Your task to perform on an android device: How do I get to the nearest grocery store? Image 0: 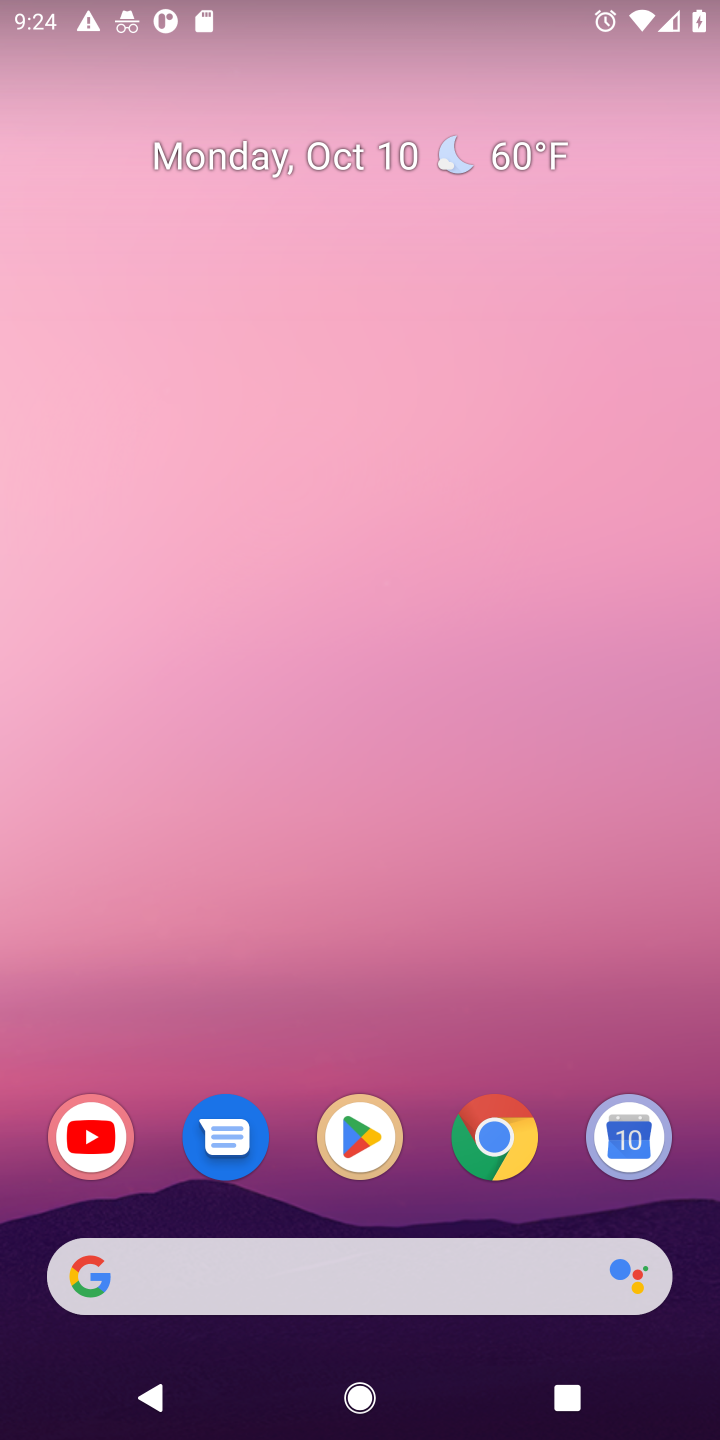
Step 0: click (496, 1144)
Your task to perform on an android device: How do I get to the nearest grocery store? Image 1: 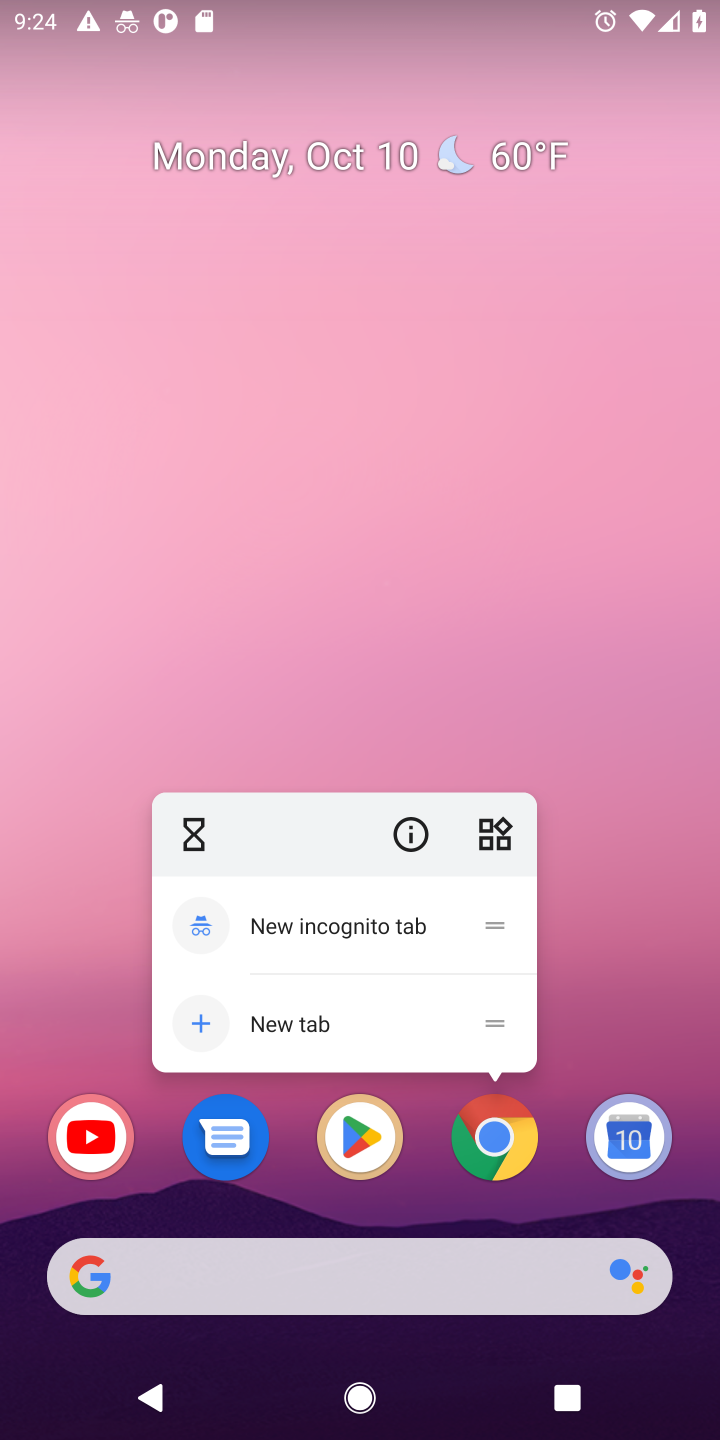
Step 1: click (496, 1144)
Your task to perform on an android device: How do I get to the nearest grocery store? Image 2: 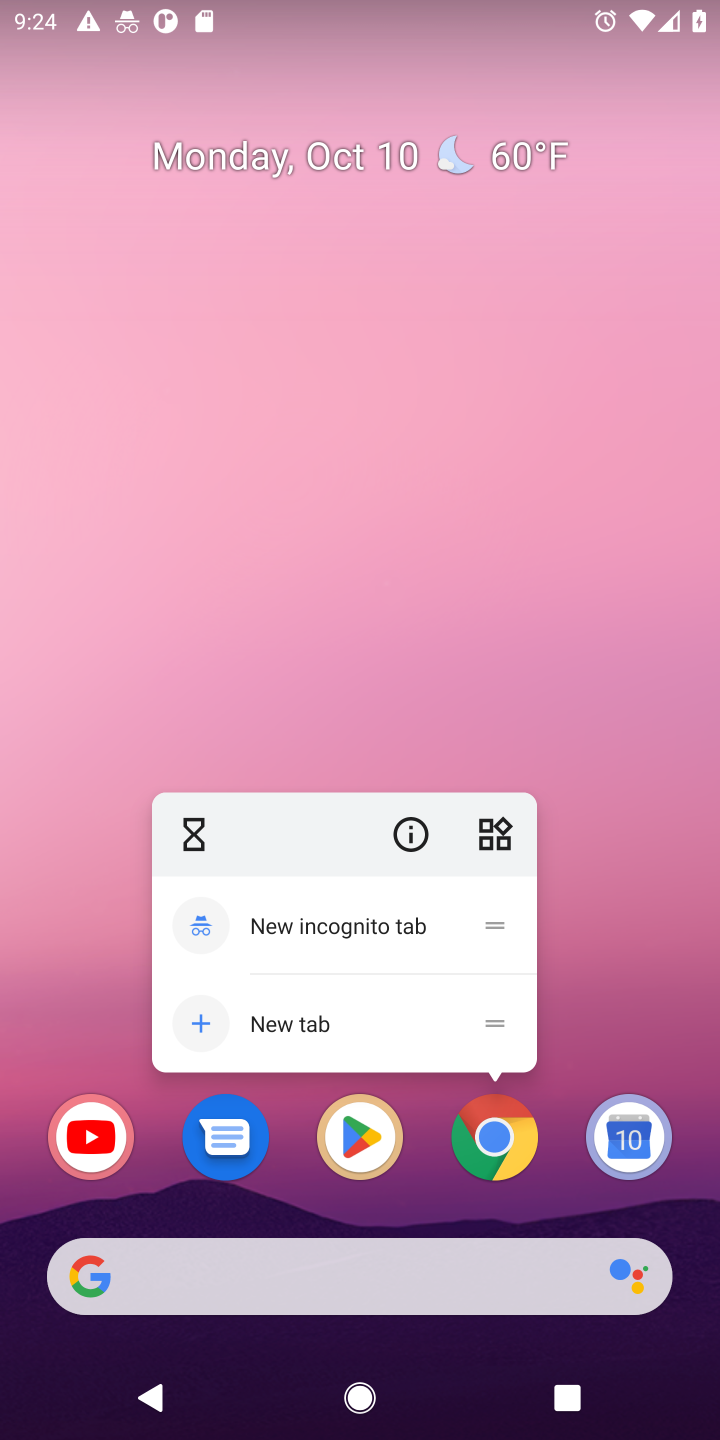
Step 2: click (431, 1196)
Your task to perform on an android device: How do I get to the nearest grocery store? Image 3: 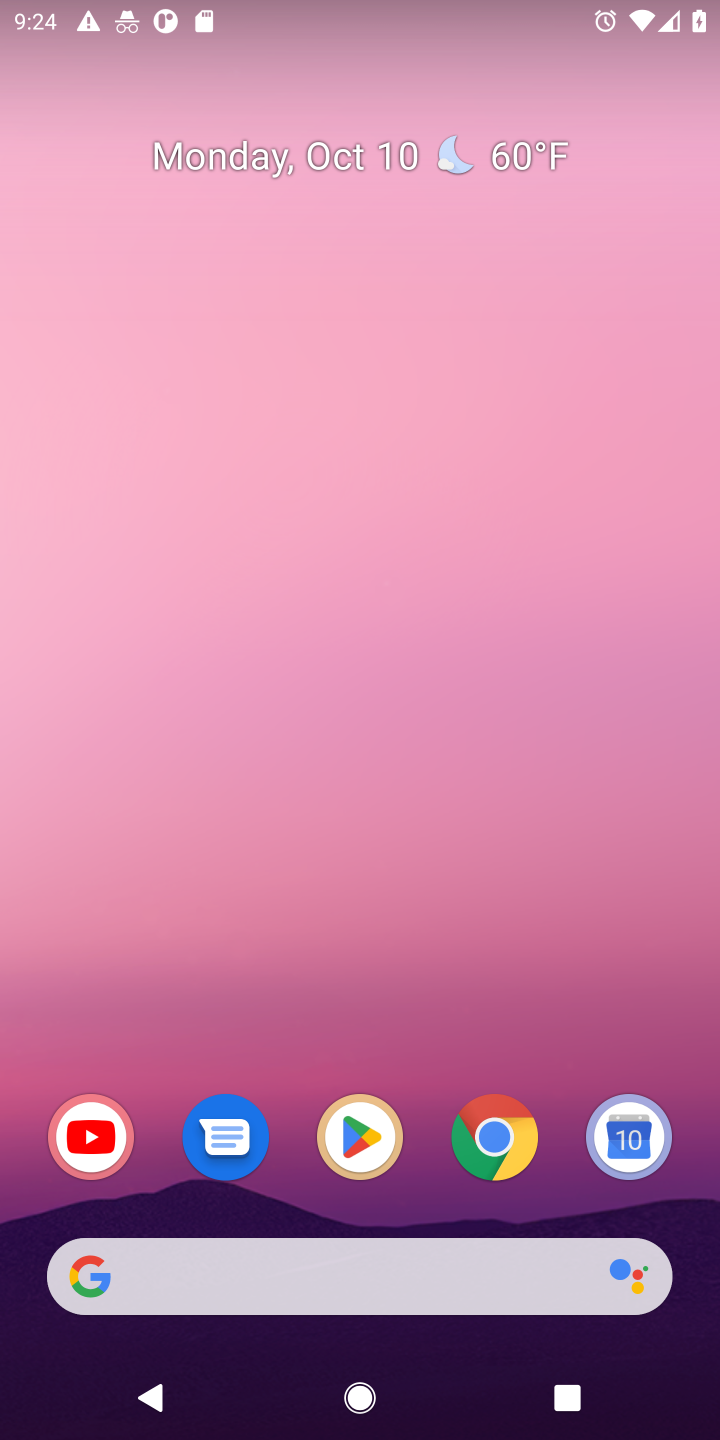
Step 3: drag from (427, 1104) to (394, 112)
Your task to perform on an android device: How do I get to the nearest grocery store? Image 4: 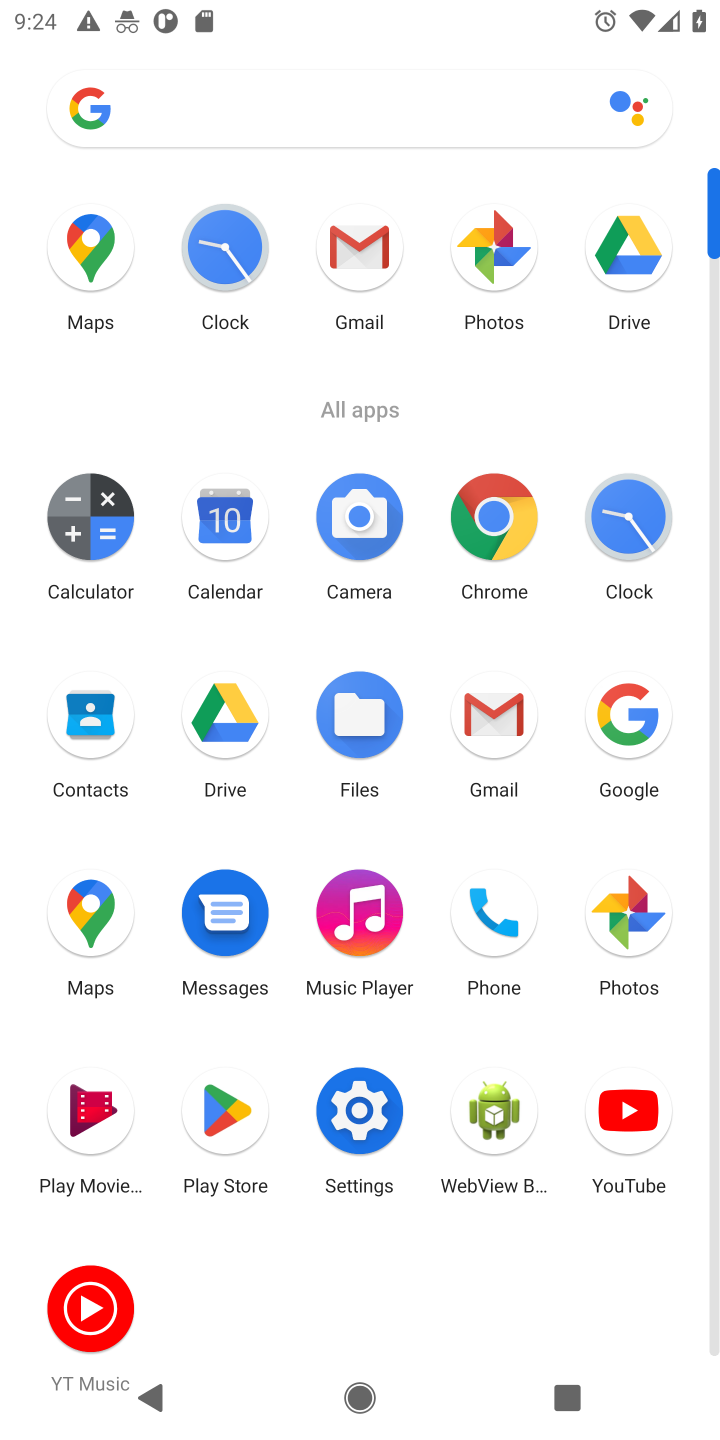
Step 4: click (85, 894)
Your task to perform on an android device: How do I get to the nearest grocery store? Image 5: 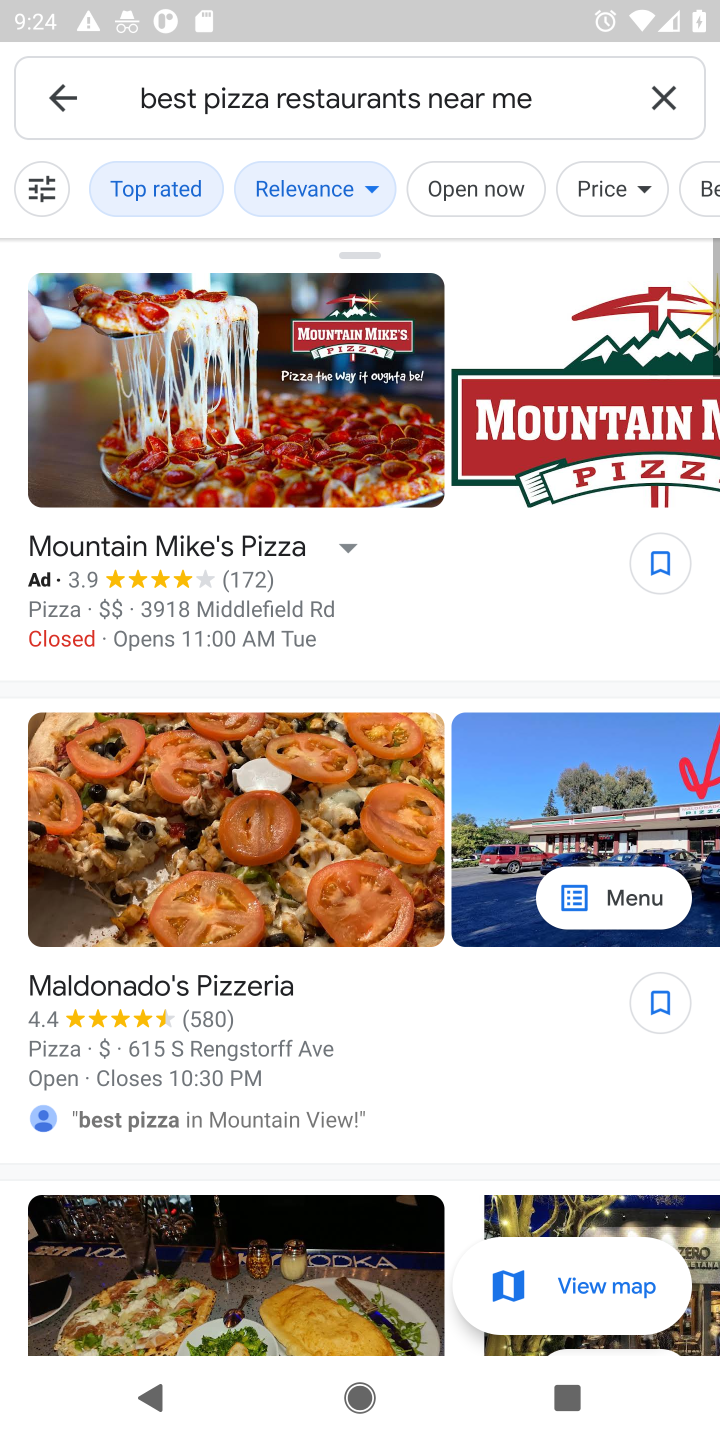
Step 5: click (651, 97)
Your task to perform on an android device: How do I get to the nearest grocery store? Image 6: 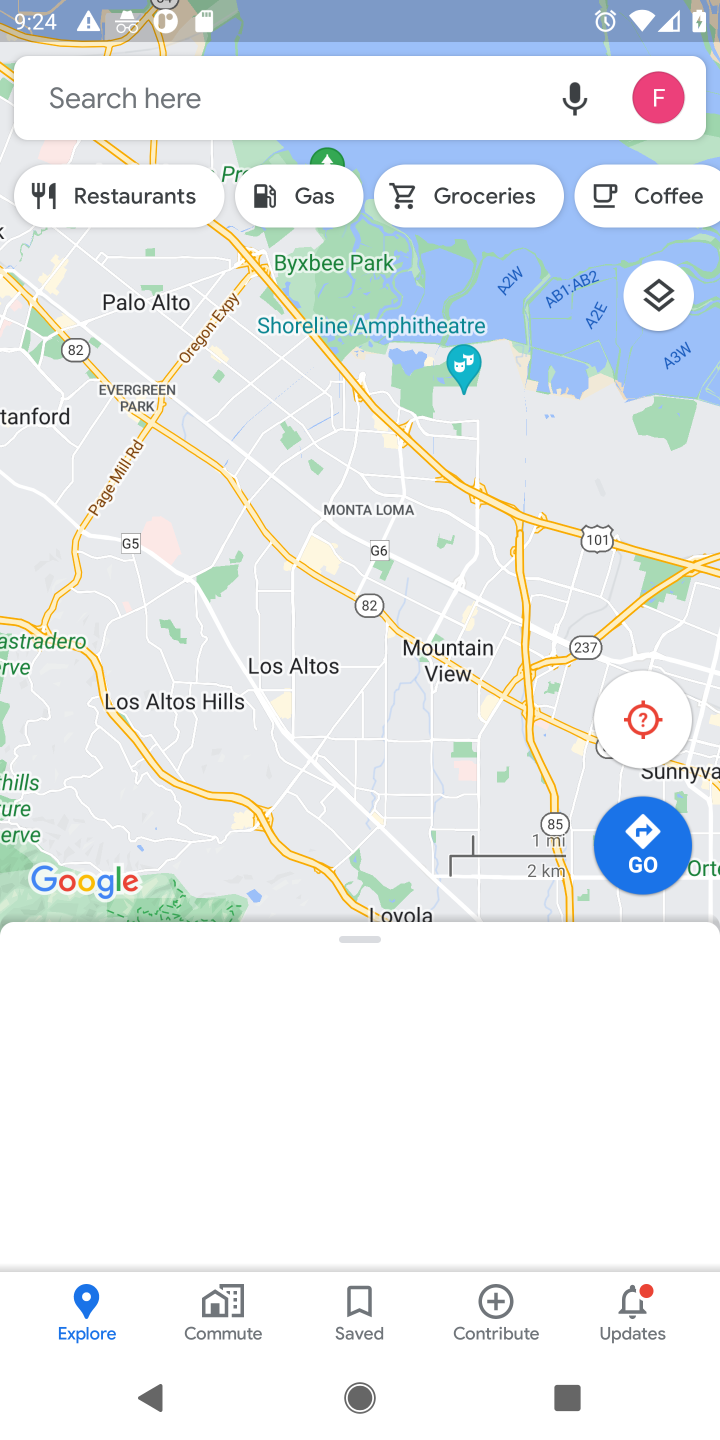
Step 6: click (182, 85)
Your task to perform on an android device: How do I get to the nearest grocery store? Image 7: 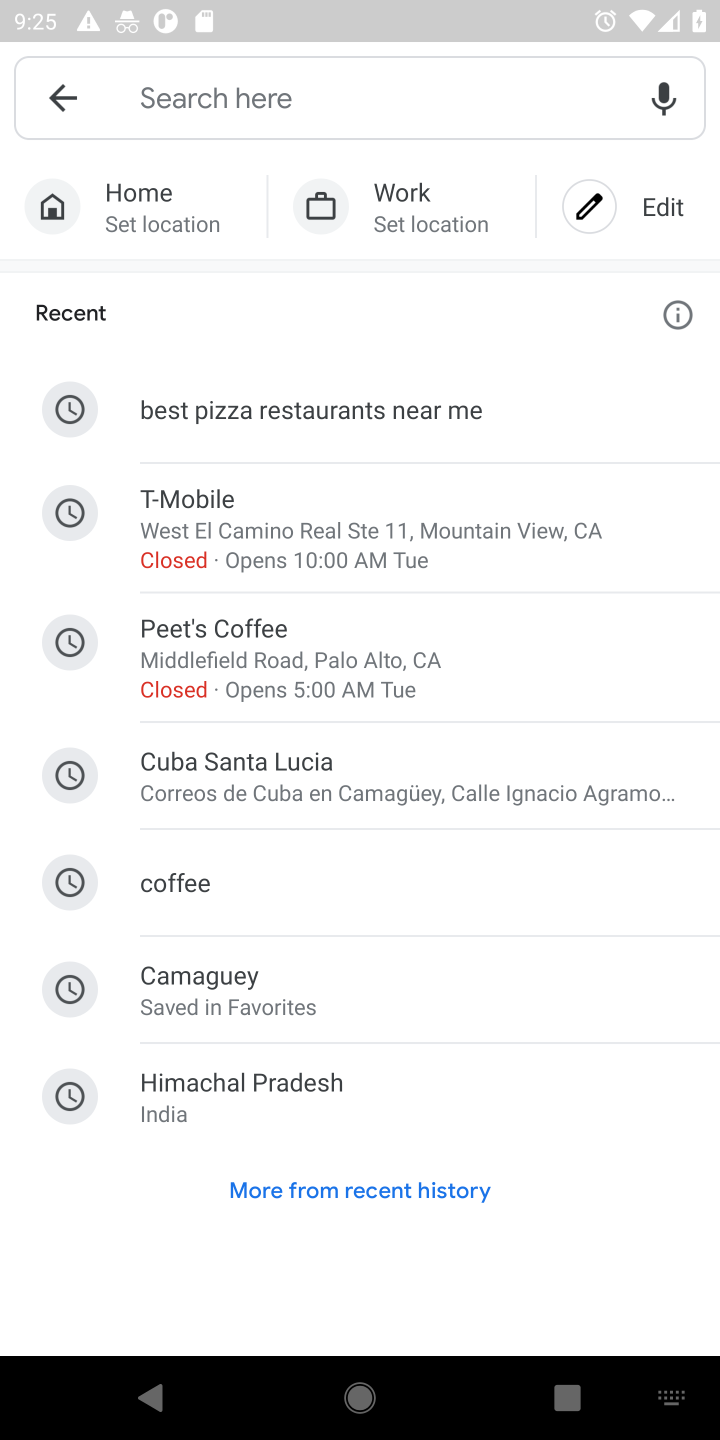
Step 7: type "nearest grocery store"
Your task to perform on an android device: How do I get to the nearest grocery store? Image 8: 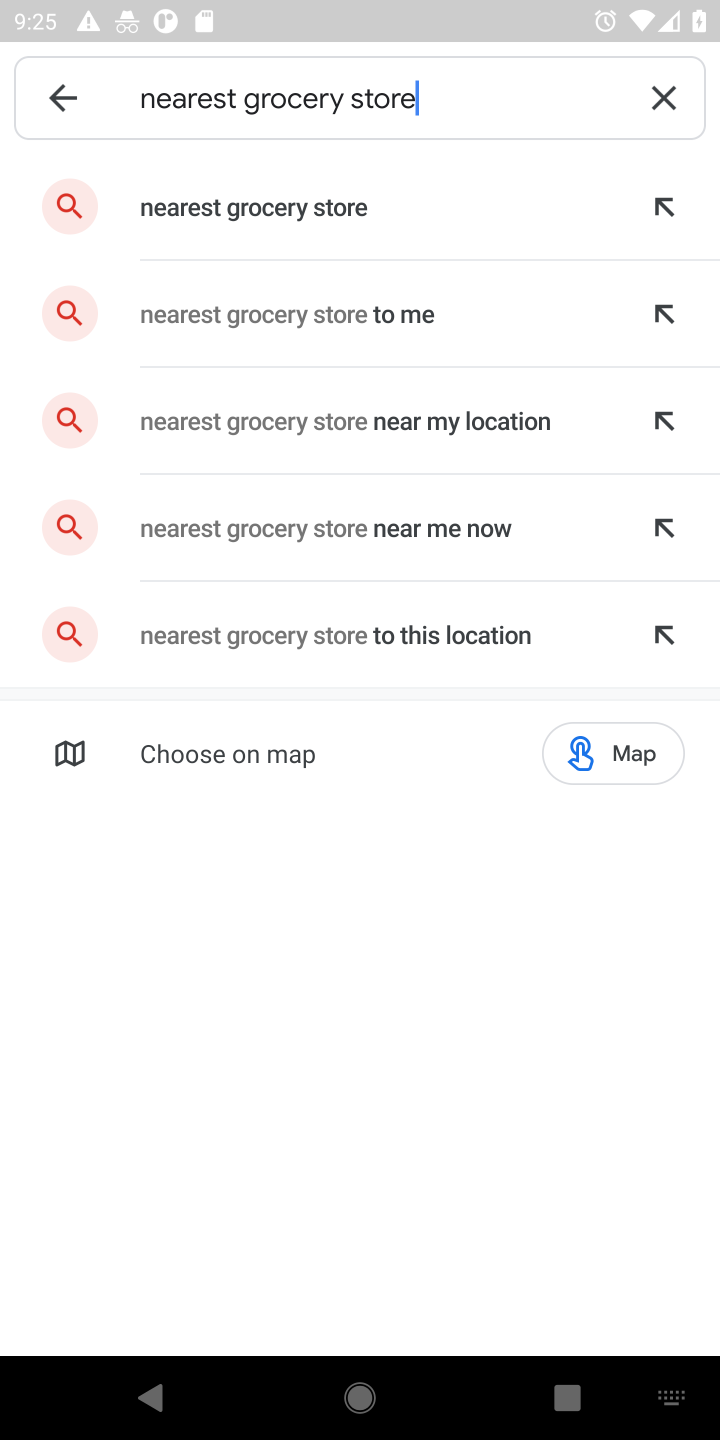
Step 8: click (325, 199)
Your task to perform on an android device: How do I get to the nearest grocery store? Image 9: 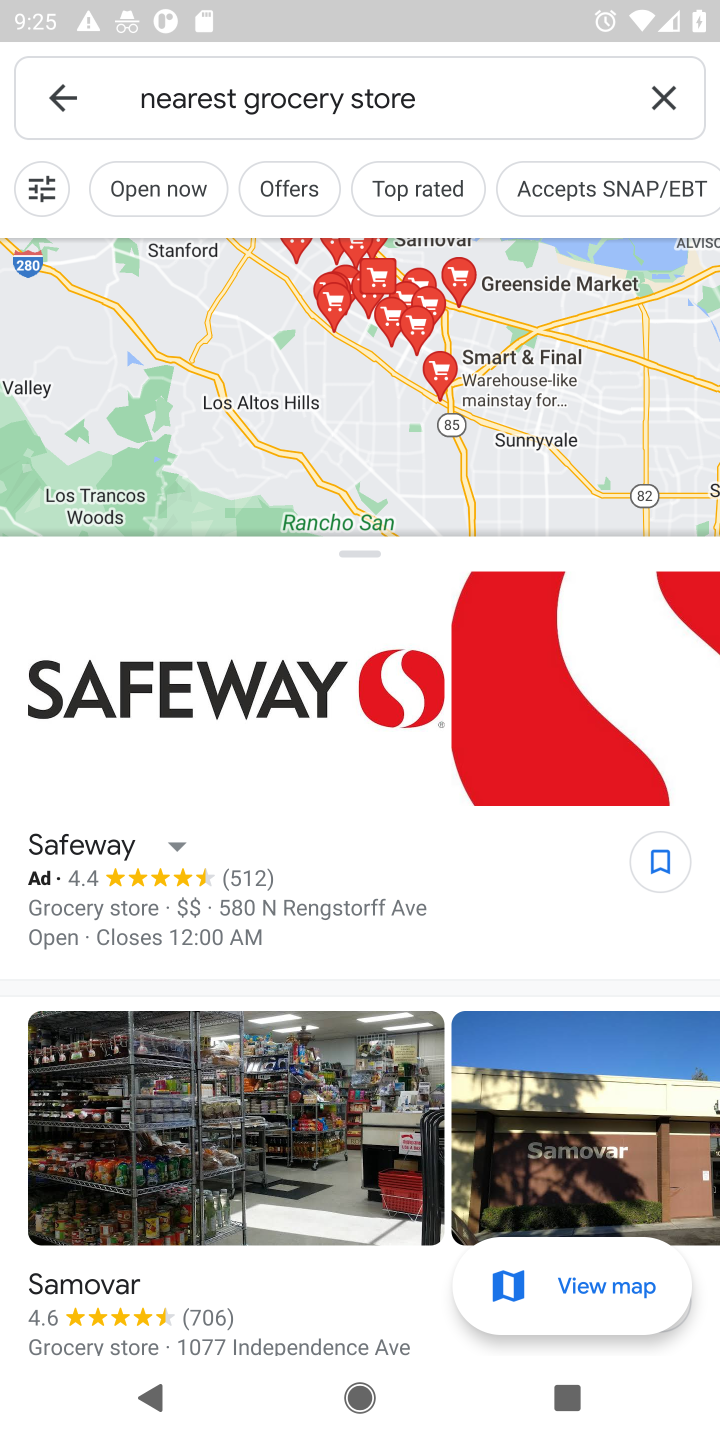
Step 9: task complete